Your task to perform on an android device: Toggle the flashlight Image 0: 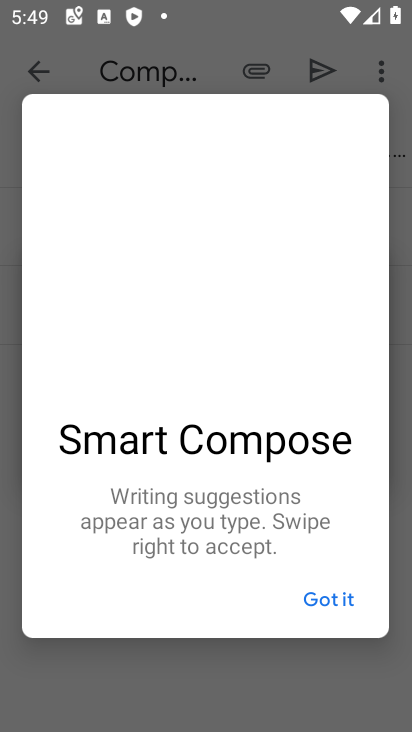
Step 0: press home button
Your task to perform on an android device: Toggle the flashlight Image 1: 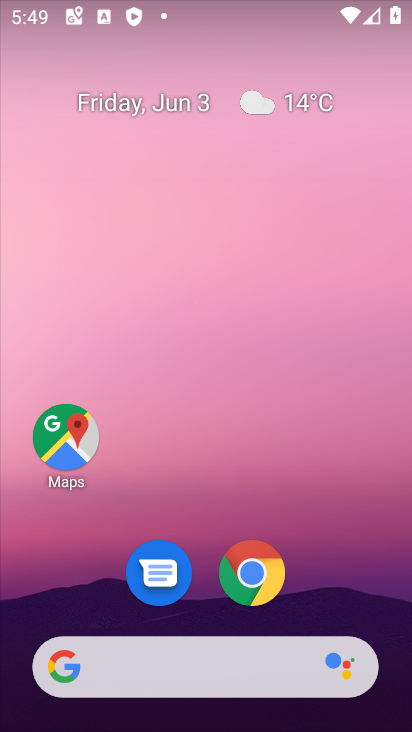
Step 1: task complete